Your task to perform on an android device: Search for pizza restaurants on Maps Image 0: 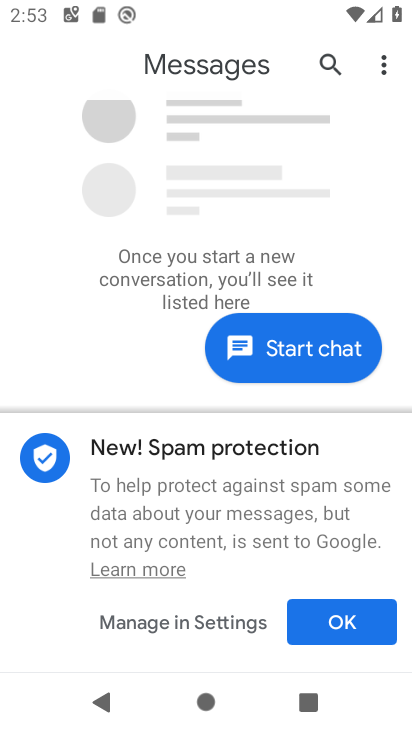
Step 0: press home button
Your task to perform on an android device: Search for pizza restaurants on Maps Image 1: 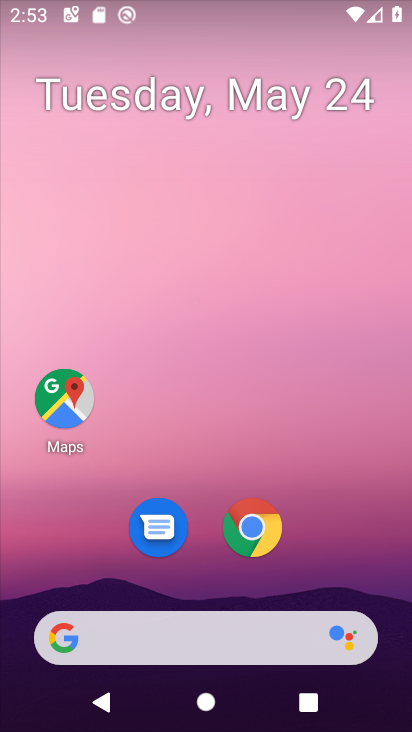
Step 1: click (63, 393)
Your task to perform on an android device: Search for pizza restaurants on Maps Image 2: 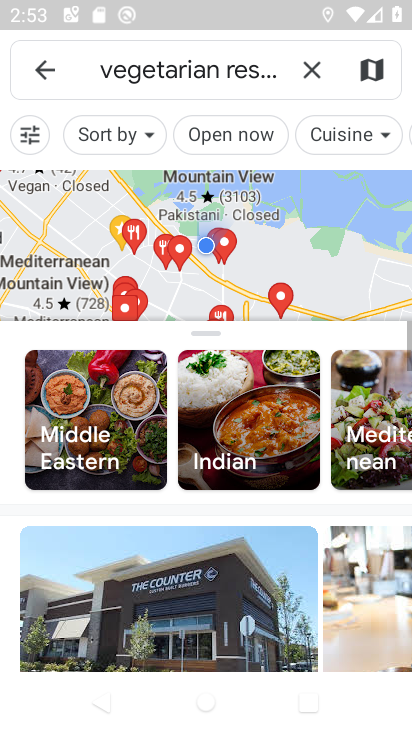
Step 2: click (305, 77)
Your task to perform on an android device: Search for pizza restaurants on Maps Image 3: 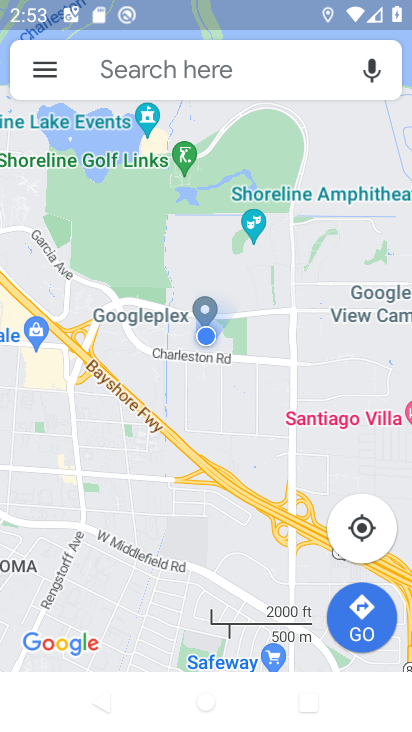
Step 3: click (105, 68)
Your task to perform on an android device: Search for pizza restaurants on Maps Image 4: 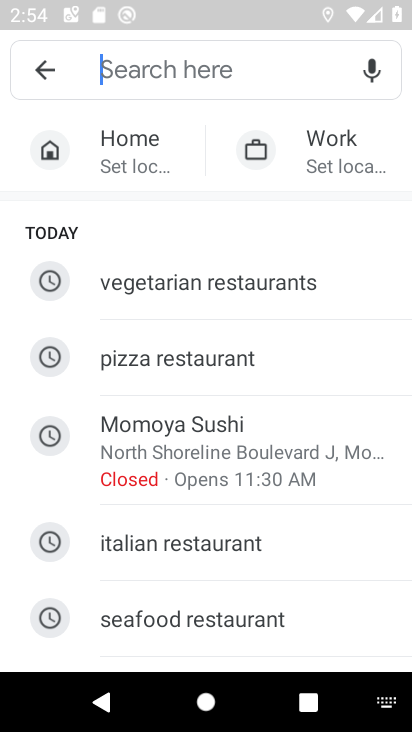
Step 4: type "pizza restaurants"
Your task to perform on an android device: Search for pizza restaurants on Maps Image 5: 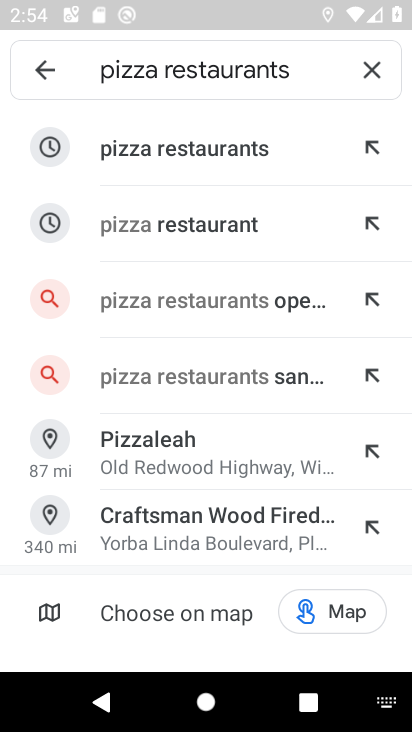
Step 5: click (175, 151)
Your task to perform on an android device: Search for pizza restaurants on Maps Image 6: 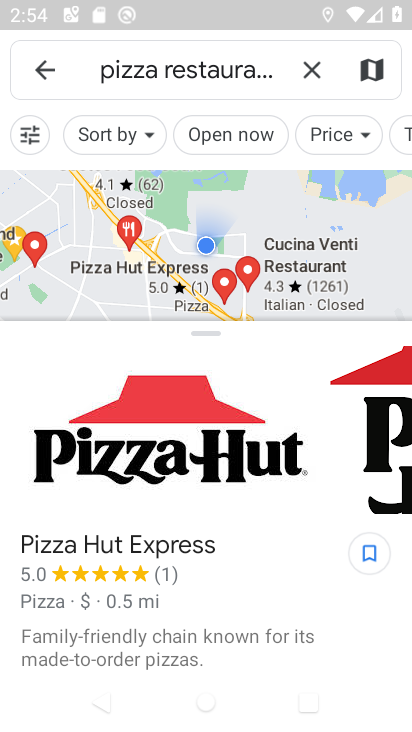
Step 6: task complete